Your task to perform on an android device: Go to Yahoo.com Image 0: 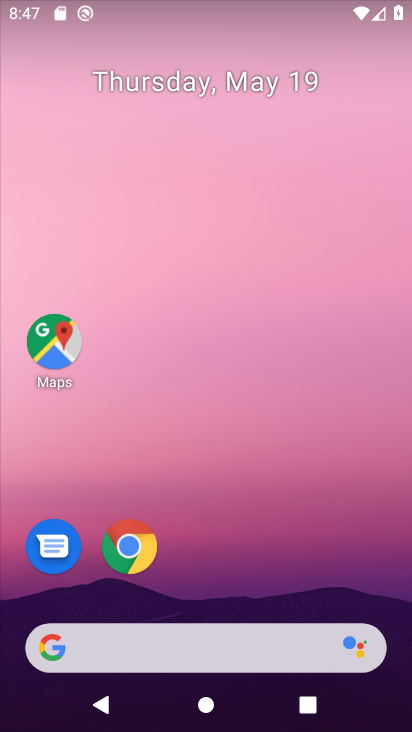
Step 0: drag from (374, 700) to (156, 0)
Your task to perform on an android device: Go to Yahoo.com Image 1: 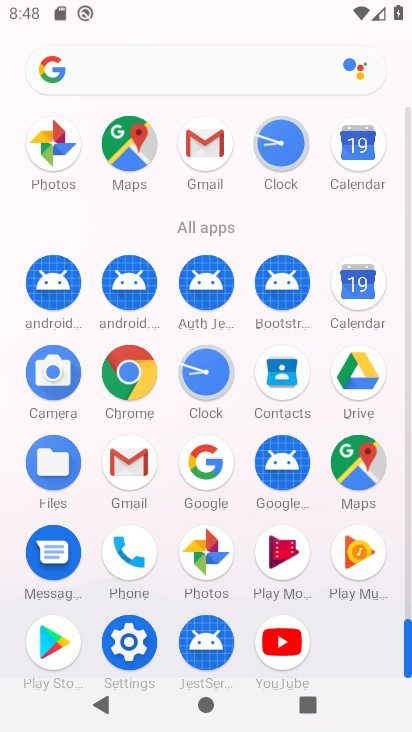
Step 1: click (125, 376)
Your task to perform on an android device: Go to Yahoo.com Image 2: 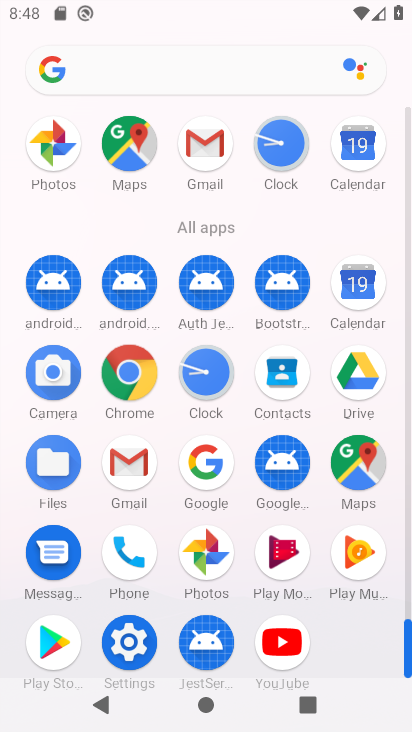
Step 2: click (125, 376)
Your task to perform on an android device: Go to Yahoo.com Image 3: 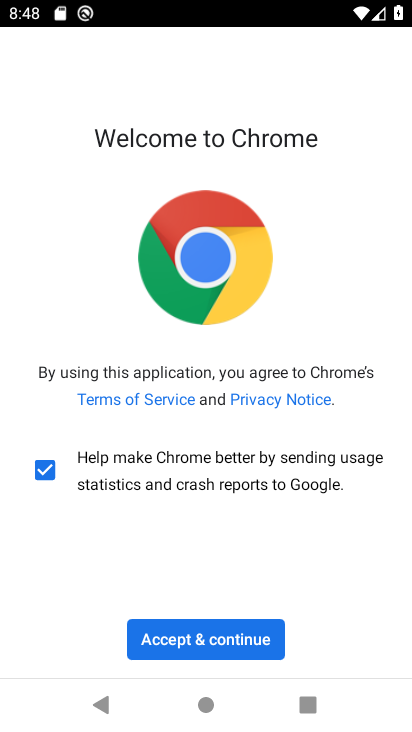
Step 3: click (214, 641)
Your task to perform on an android device: Go to Yahoo.com Image 4: 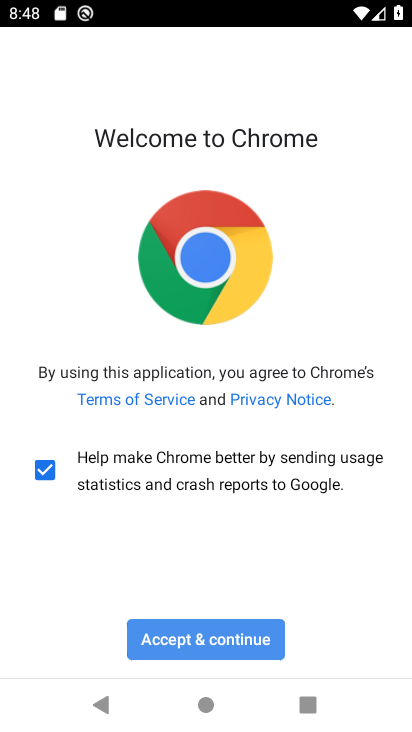
Step 4: click (214, 641)
Your task to perform on an android device: Go to Yahoo.com Image 5: 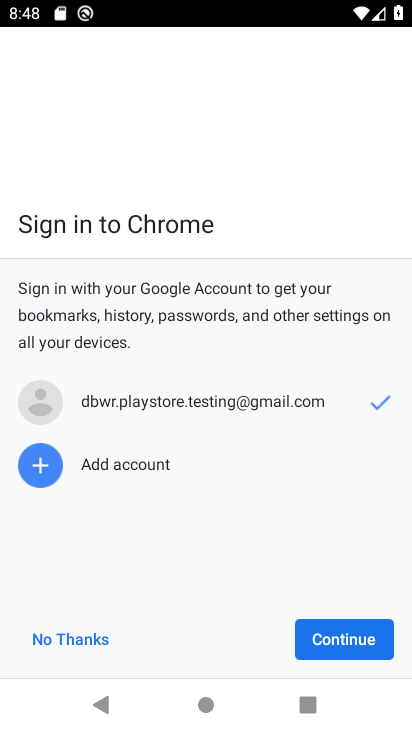
Step 5: click (212, 639)
Your task to perform on an android device: Go to Yahoo.com Image 6: 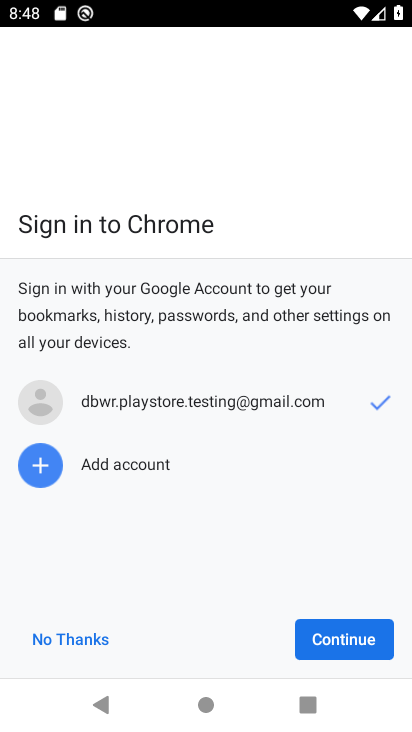
Step 6: click (210, 638)
Your task to perform on an android device: Go to Yahoo.com Image 7: 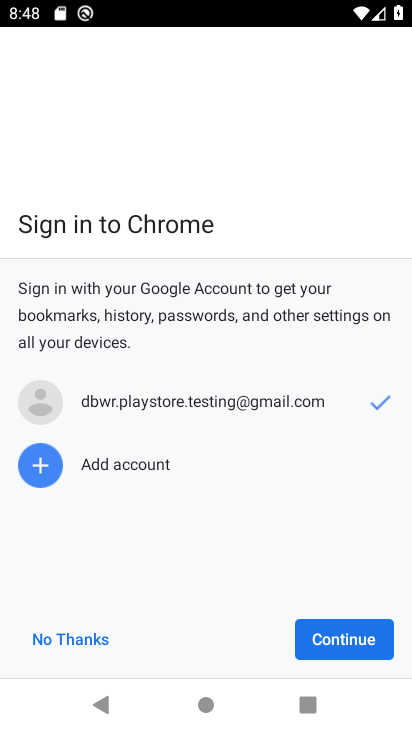
Step 7: click (210, 638)
Your task to perform on an android device: Go to Yahoo.com Image 8: 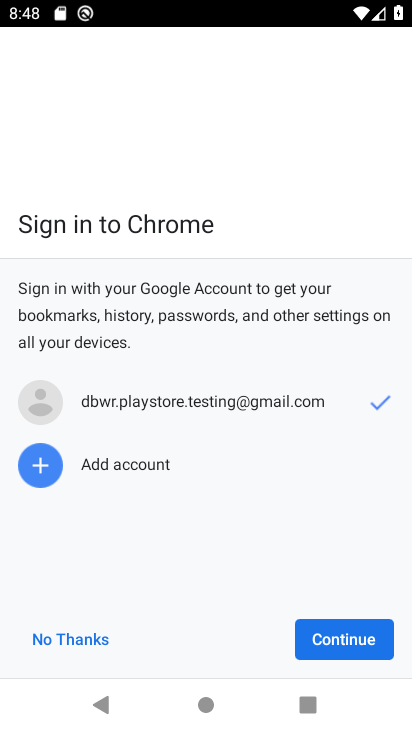
Step 8: click (352, 630)
Your task to perform on an android device: Go to Yahoo.com Image 9: 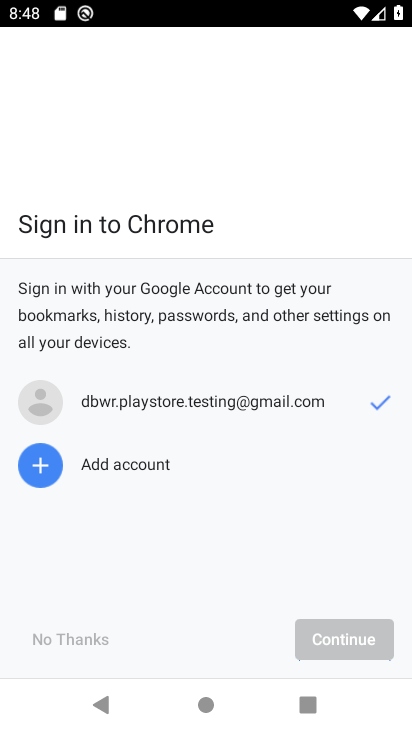
Step 9: click (353, 633)
Your task to perform on an android device: Go to Yahoo.com Image 10: 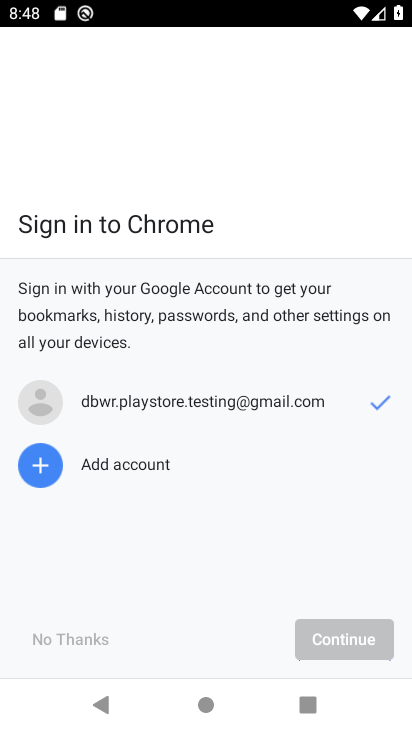
Step 10: click (349, 633)
Your task to perform on an android device: Go to Yahoo.com Image 11: 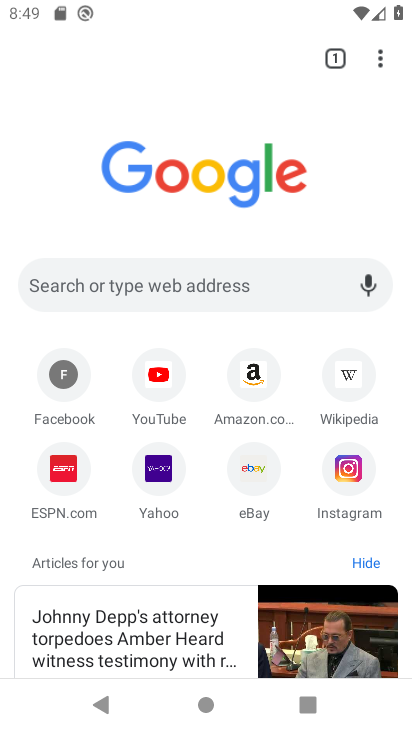
Step 11: click (150, 483)
Your task to perform on an android device: Go to Yahoo.com Image 12: 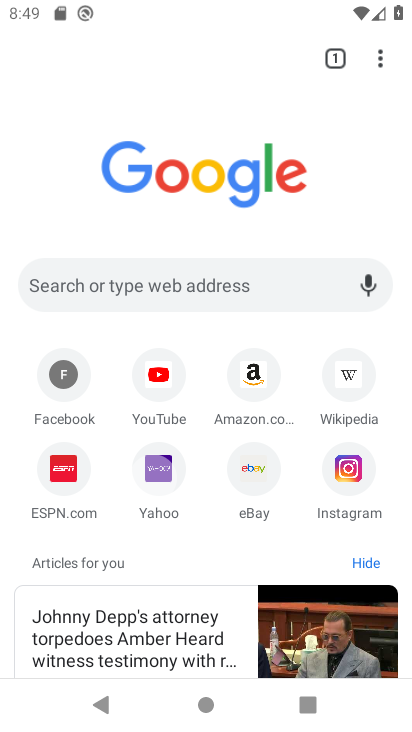
Step 12: click (151, 479)
Your task to perform on an android device: Go to Yahoo.com Image 13: 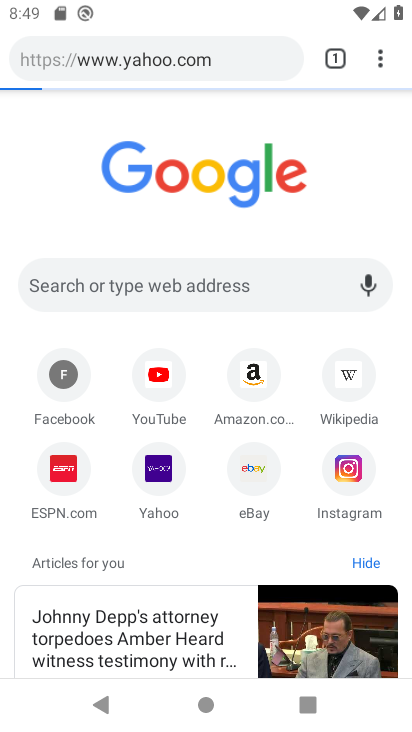
Step 13: click (151, 479)
Your task to perform on an android device: Go to Yahoo.com Image 14: 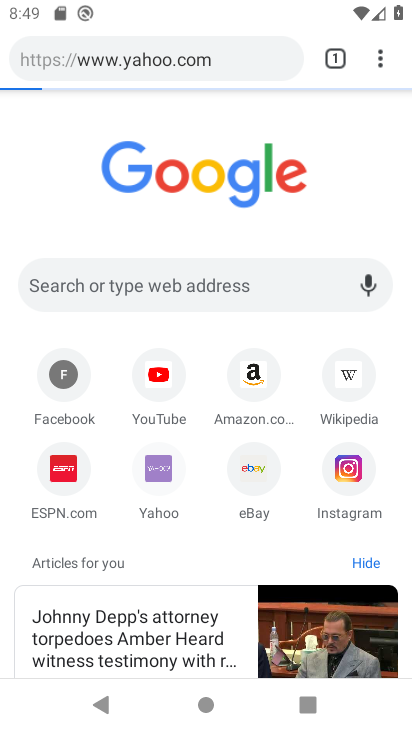
Step 14: drag from (152, 462) to (132, 426)
Your task to perform on an android device: Go to Yahoo.com Image 15: 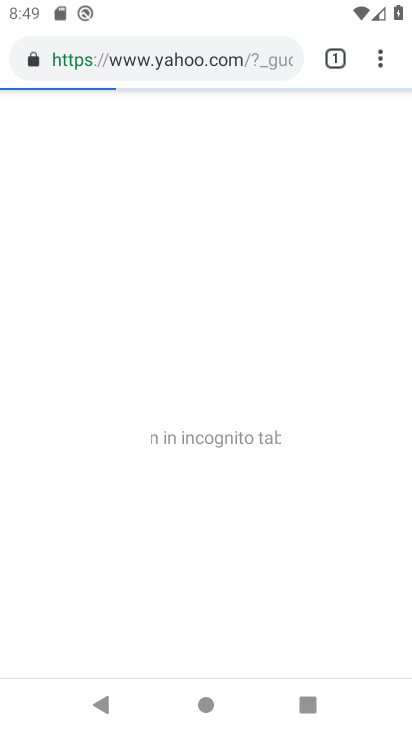
Step 15: click (131, 423)
Your task to perform on an android device: Go to Yahoo.com Image 16: 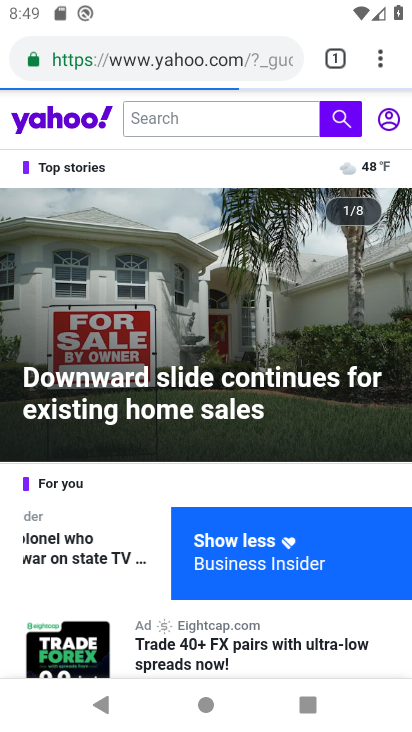
Step 16: task complete